Your task to perform on an android device: Search for bose soundlink on costco, select the first entry, and add it to the cart. Image 0: 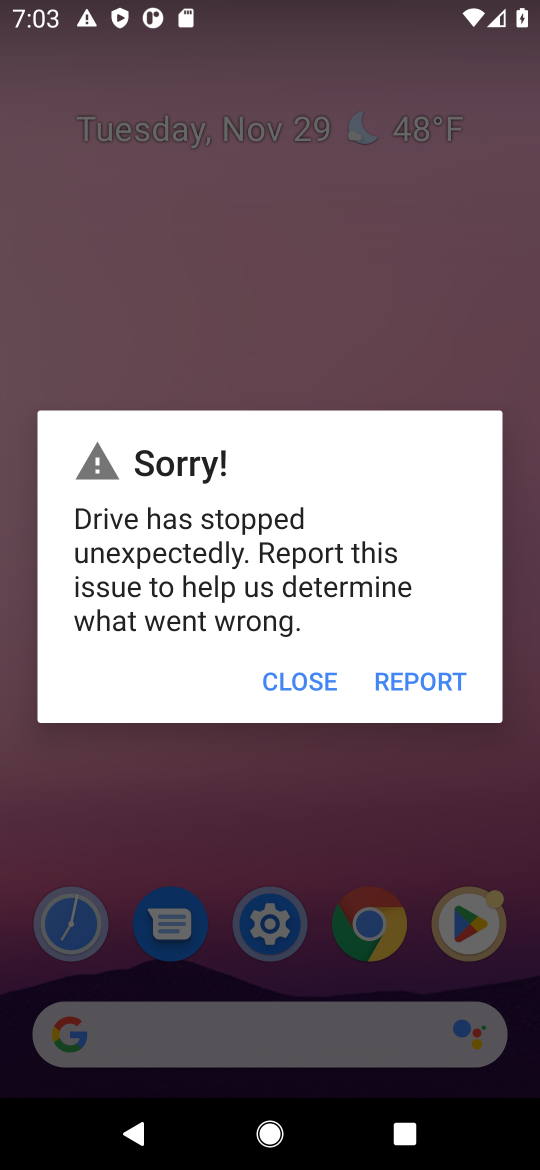
Step 0: click (312, 689)
Your task to perform on an android device: Search for bose soundlink on costco, select the first entry, and add it to the cart. Image 1: 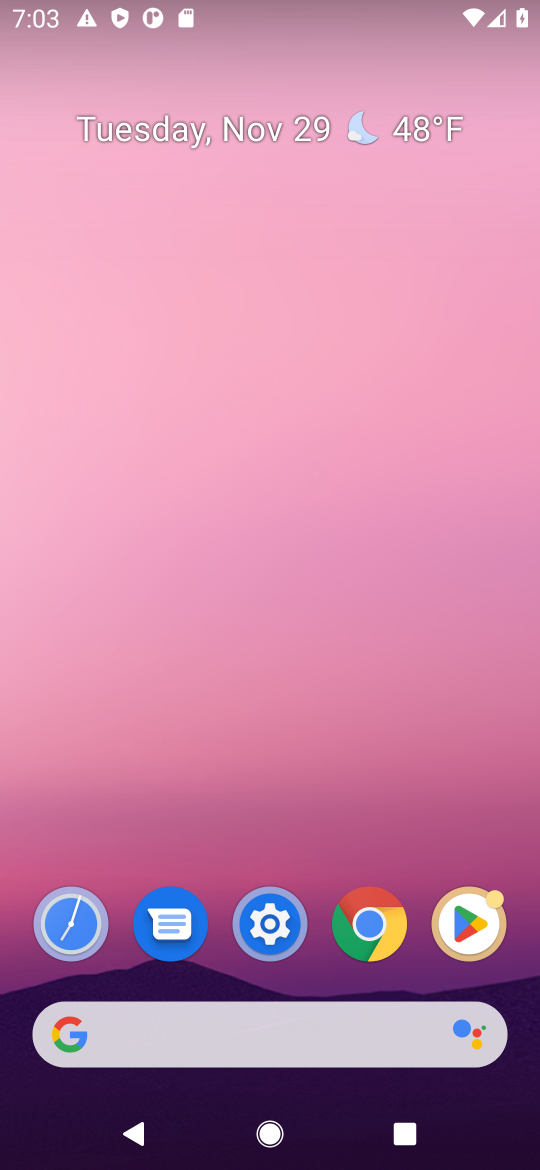
Step 1: click (268, 1042)
Your task to perform on an android device: Search for bose soundlink on costco, select the first entry, and add it to the cart. Image 2: 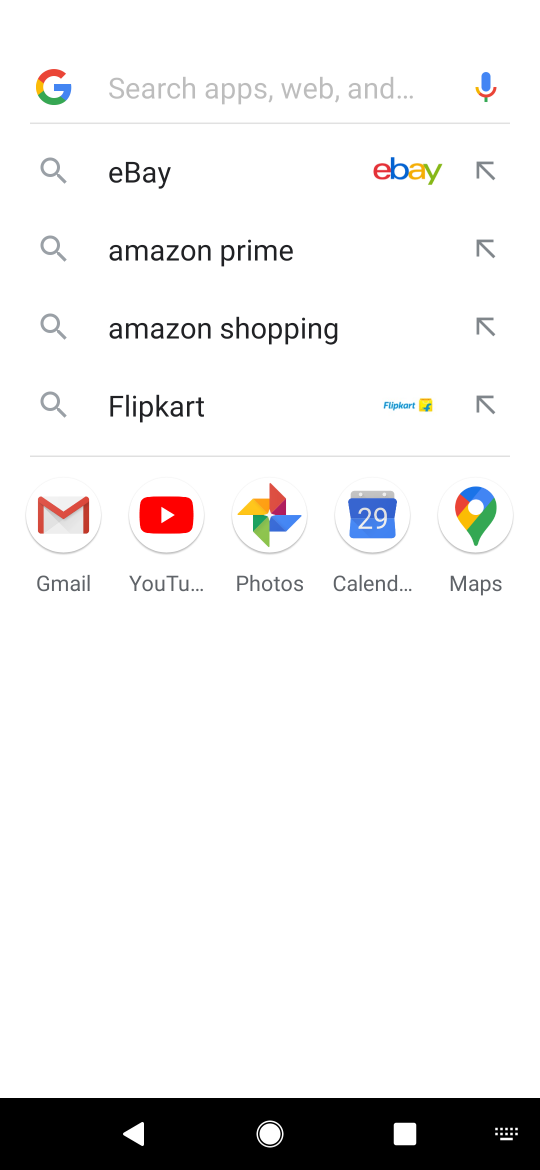
Step 2: type "costco.com"
Your task to perform on an android device: Search for bose soundlink on costco, select the first entry, and add it to the cart. Image 3: 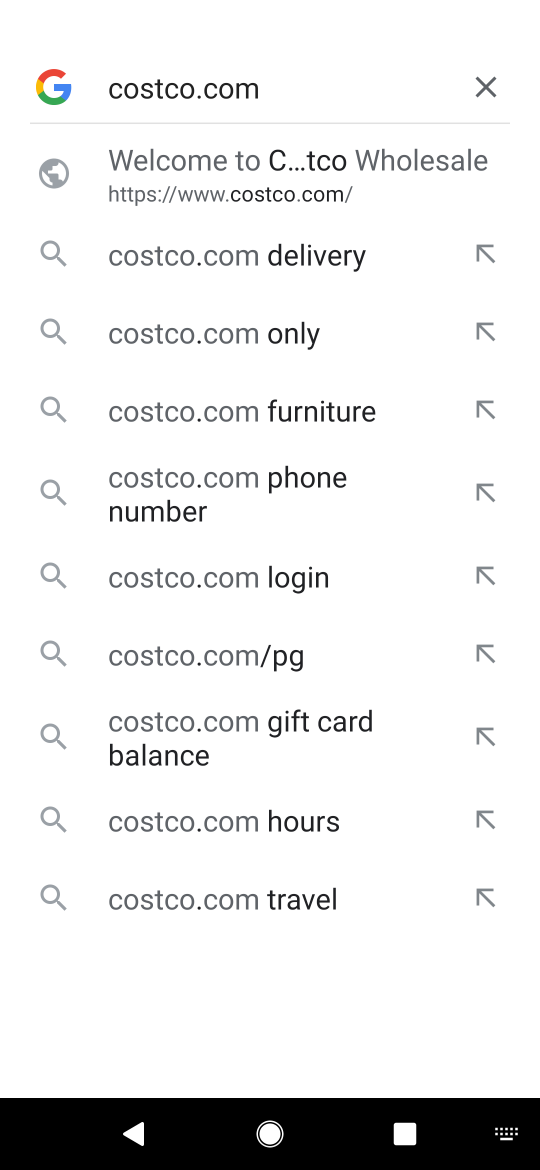
Step 3: click (175, 173)
Your task to perform on an android device: Search for bose soundlink on costco, select the first entry, and add it to the cart. Image 4: 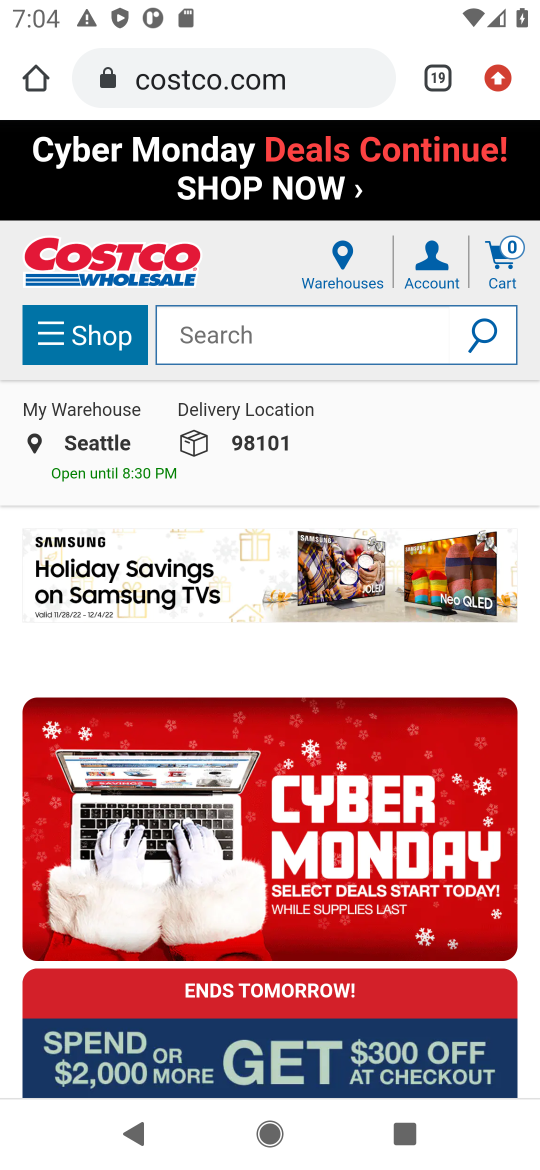
Step 4: click (298, 369)
Your task to perform on an android device: Search for bose soundlink on costco, select the first entry, and add it to the cart. Image 5: 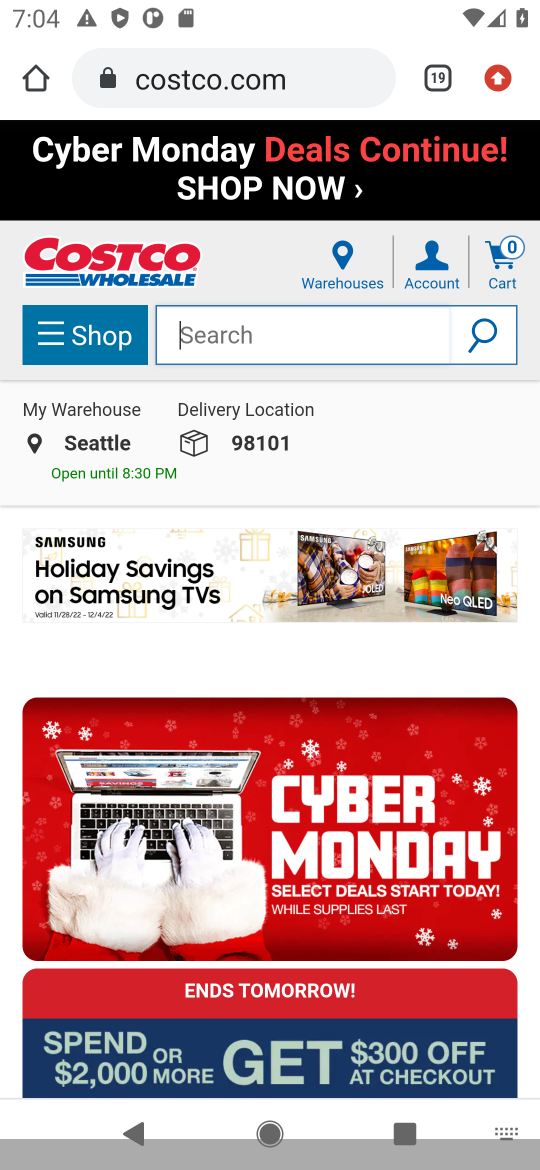
Step 5: click (300, 365)
Your task to perform on an android device: Search for bose soundlink on costco, select the first entry, and add it to the cart. Image 6: 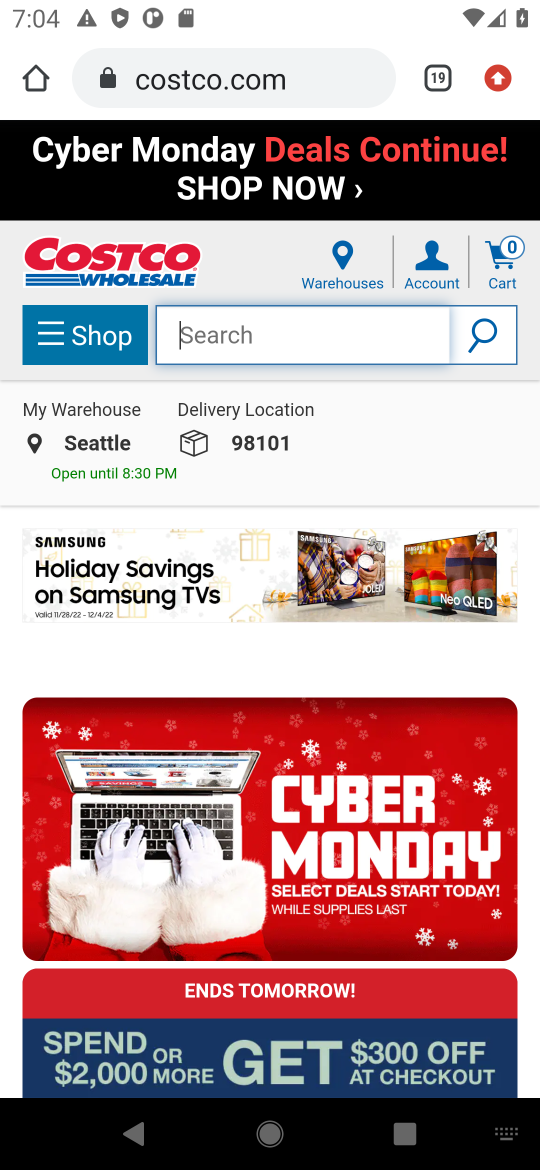
Step 6: type "bose soundlink"
Your task to perform on an android device: Search for bose soundlink on costco, select the first entry, and add it to the cart. Image 7: 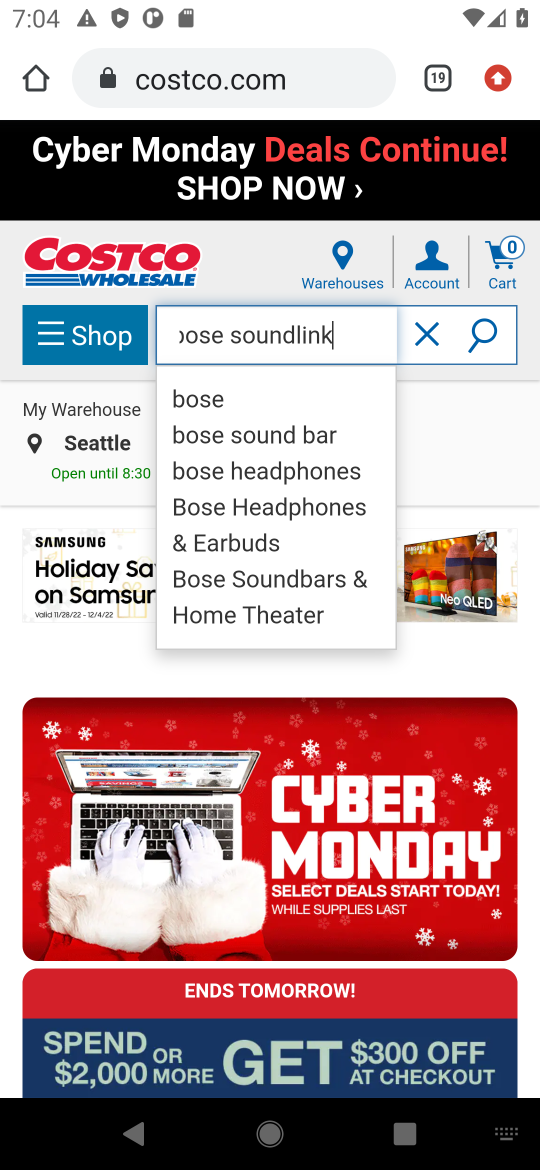
Step 7: click (475, 344)
Your task to perform on an android device: Search for bose soundlink on costco, select the first entry, and add it to the cart. Image 8: 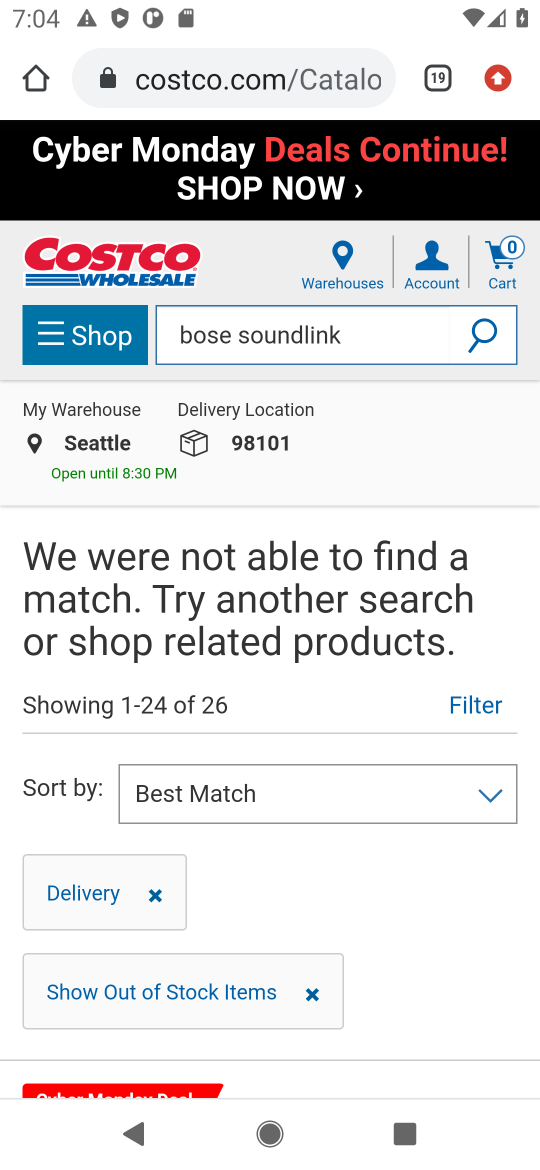
Step 8: drag from (471, 979) to (262, 213)
Your task to perform on an android device: Search for bose soundlink on costco, select the first entry, and add it to the cart. Image 9: 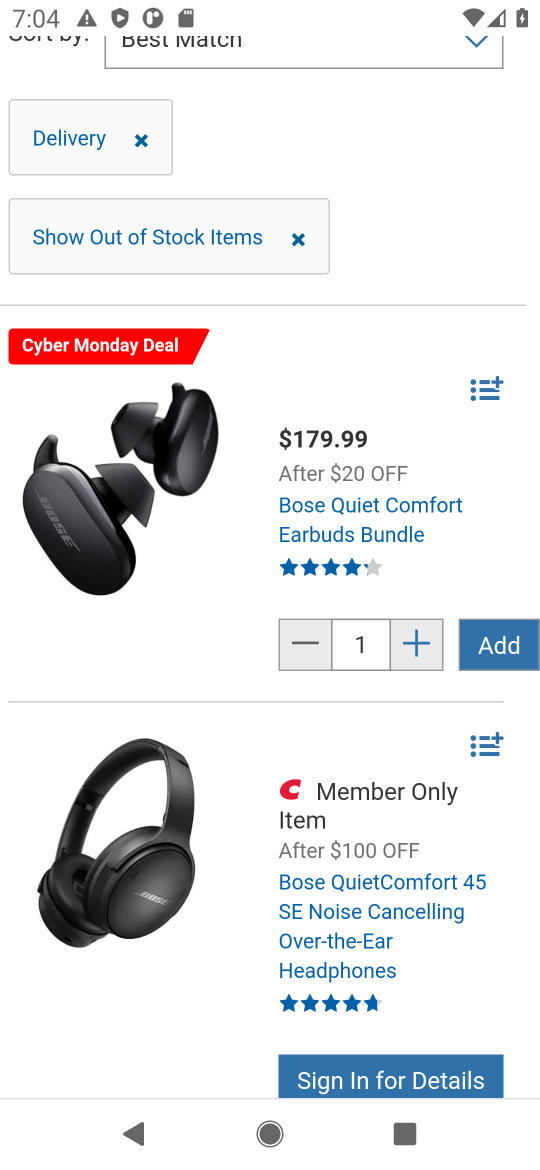
Step 9: click (483, 669)
Your task to perform on an android device: Search for bose soundlink on costco, select the first entry, and add it to the cart. Image 10: 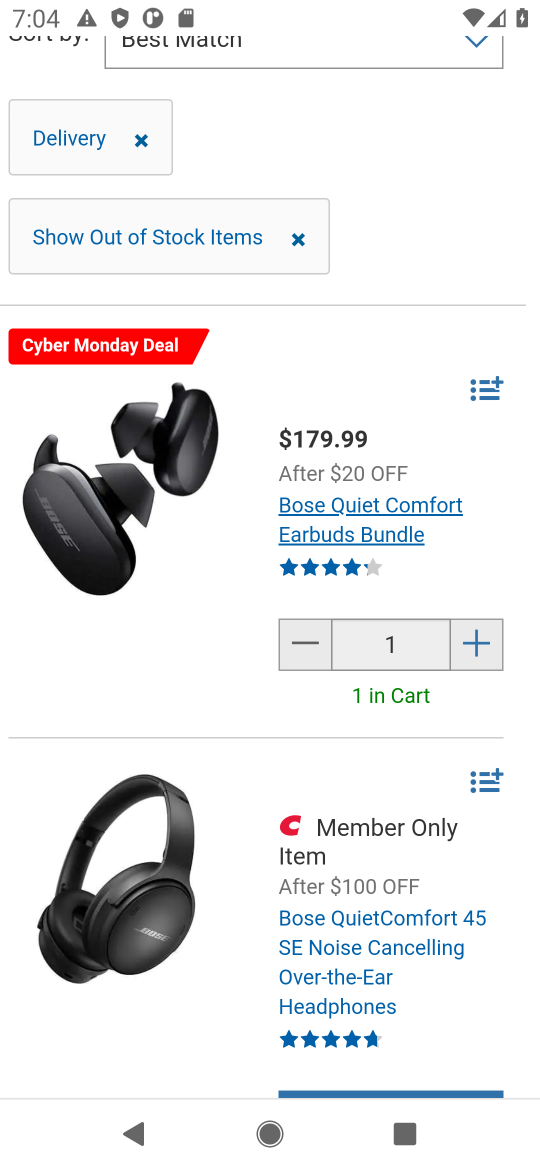
Step 10: task complete